Your task to perform on an android device: Search for usb-c on target, select the first entry, add it to the cart, then select checkout. Image 0: 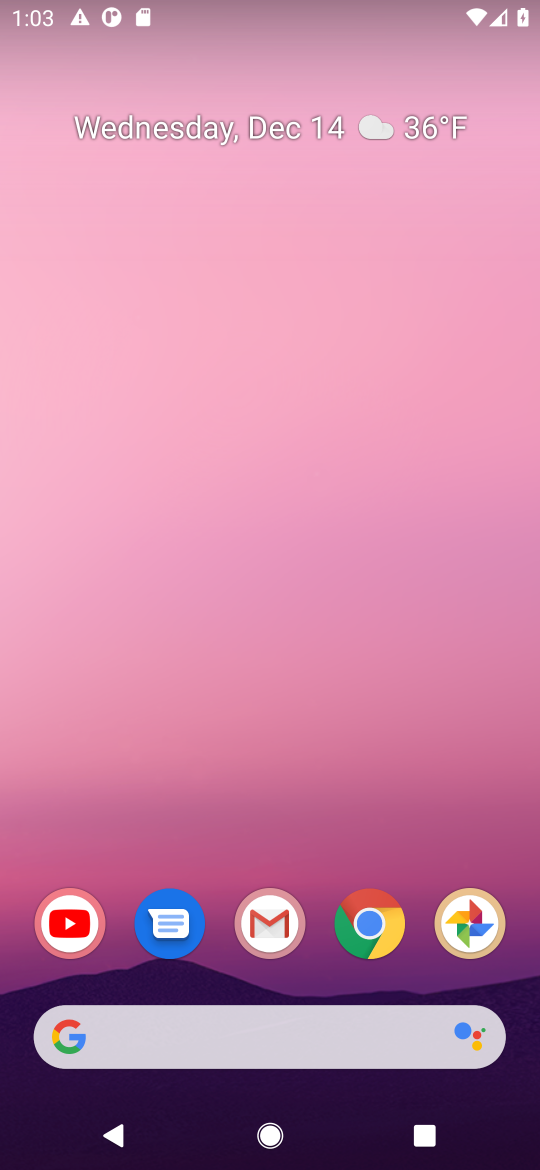
Step 0: click (343, 929)
Your task to perform on an android device: Search for usb-c on target, select the first entry, add it to the cart, then select checkout. Image 1: 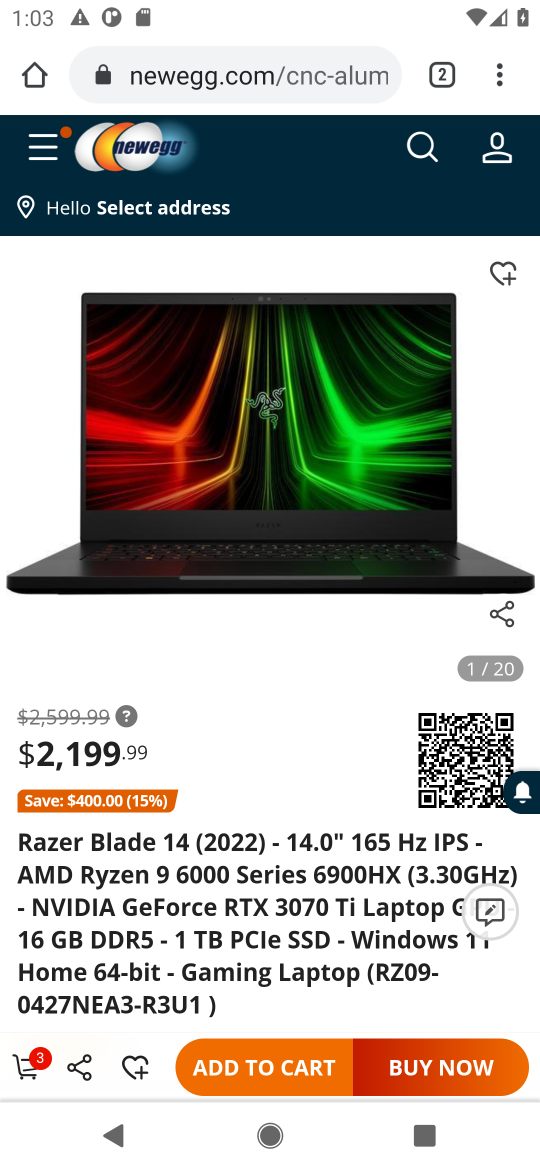
Step 1: click (154, 59)
Your task to perform on an android device: Search for usb-c on target, select the first entry, add it to the cart, then select checkout. Image 2: 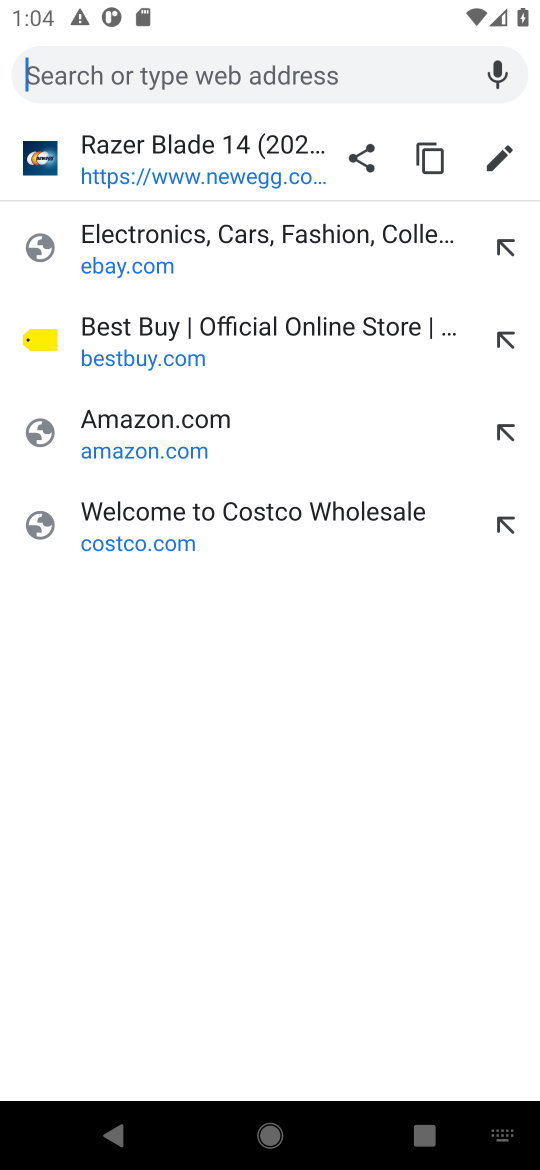
Step 2: type "target"
Your task to perform on an android device: Search for usb-c on target, select the first entry, add it to the cart, then select checkout. Image 3: 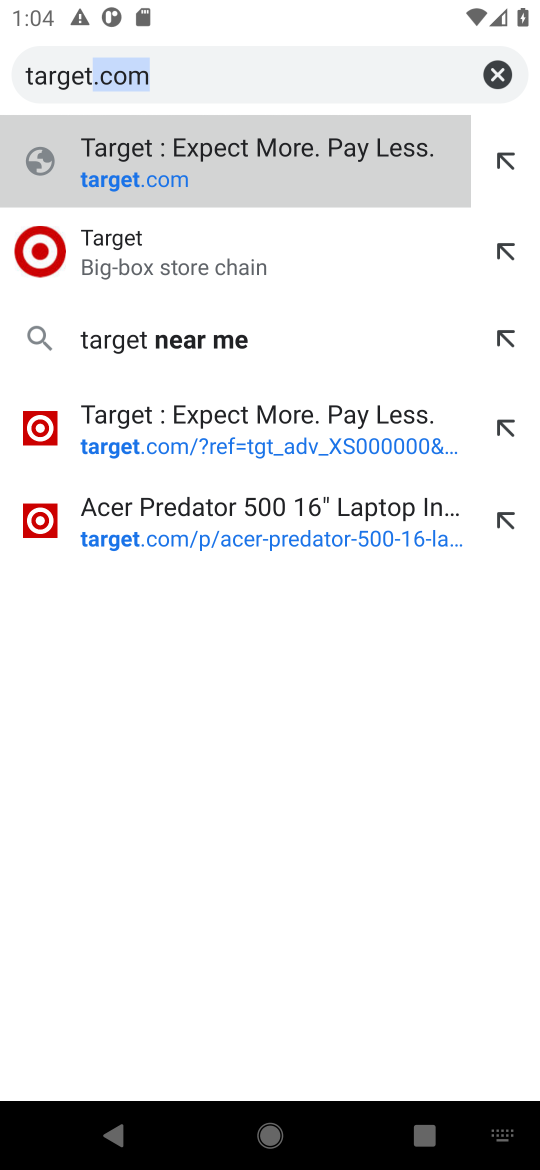
Step 3: click (72, 245)
Your task to perform on an android device: Search for usb-c on target, select the first entry, add it to the cart, then select checkout. Image 4: 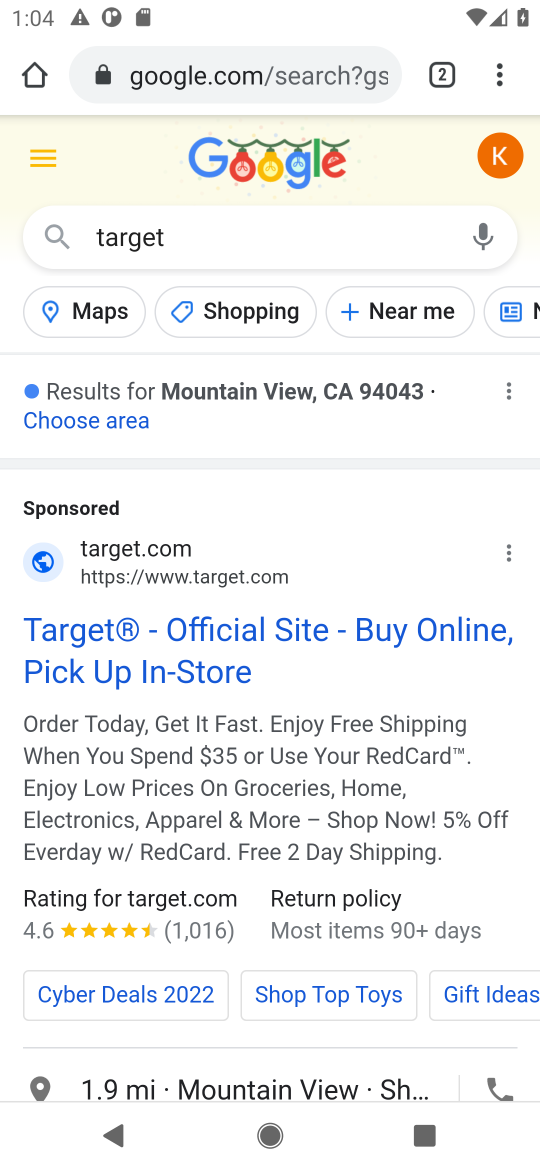
Step 4: click (184, 594)
Your task to perform on an android device: Search for usb-c on target, select the first entry, add it to the cart, then select checkout. Image 5: 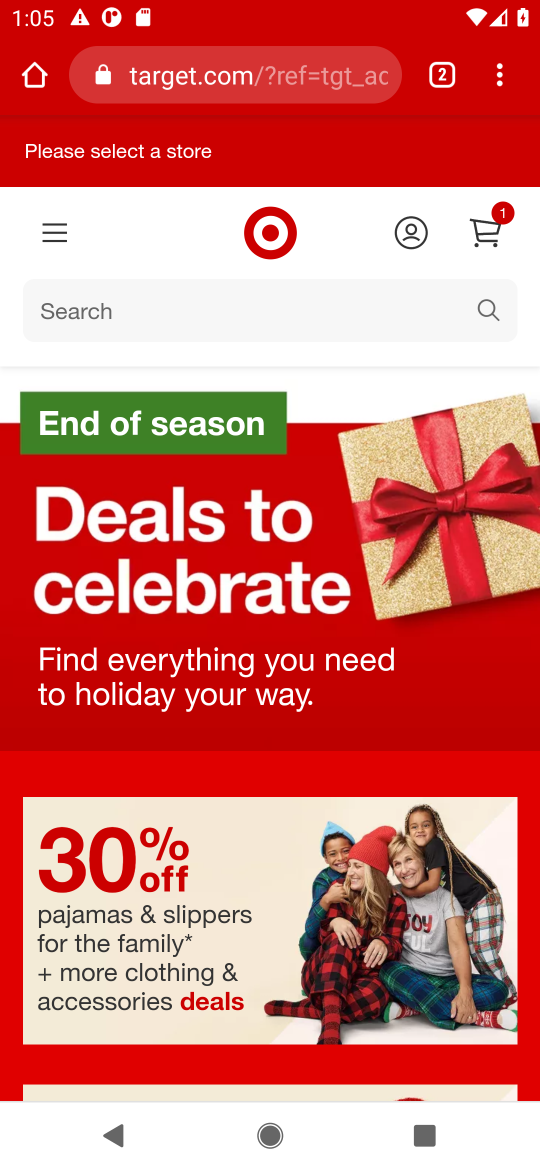
Step 5: task complete